Your task to perform on an android device: Set the phone to "Do not disturb". Image 0: 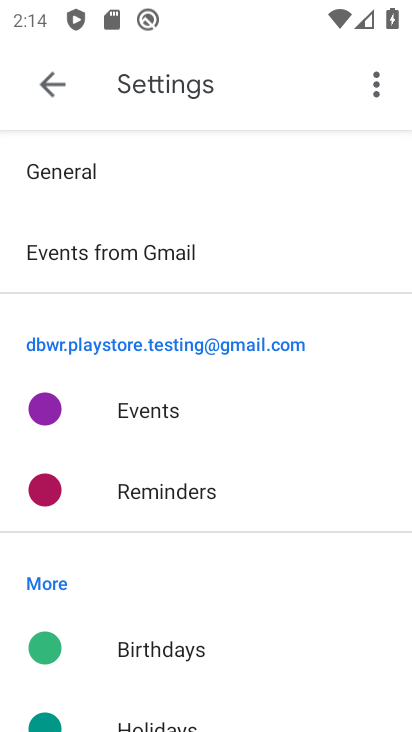
Step 0: press home button
Your task to perform on an android device: Set the phone to "Do not disturb". Image 1: 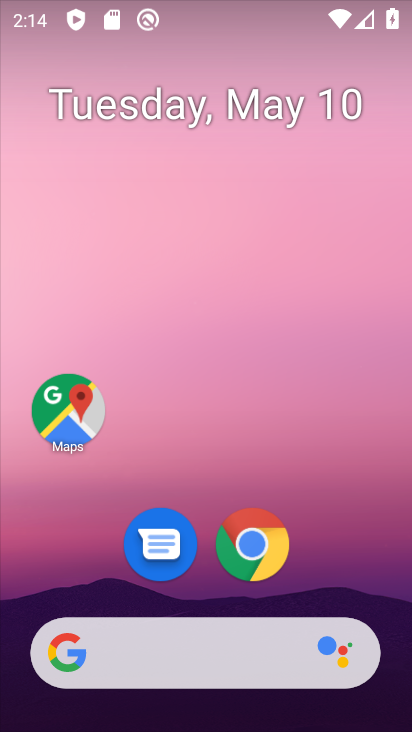
Step 1: drag from (214, 725) to (216, 139)
Your task to perform on an android device: Set the phone to "Do not disturb". Image 2: 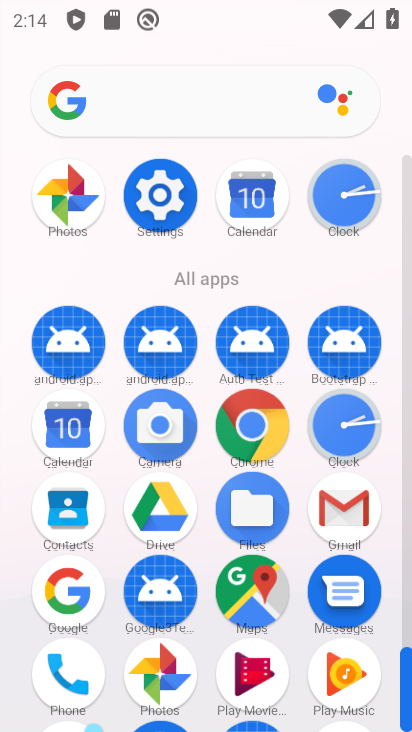
Step 2: click (162, 192)
Your task to perform on an android device: Set the phone to "Do not disturb". Image 3: 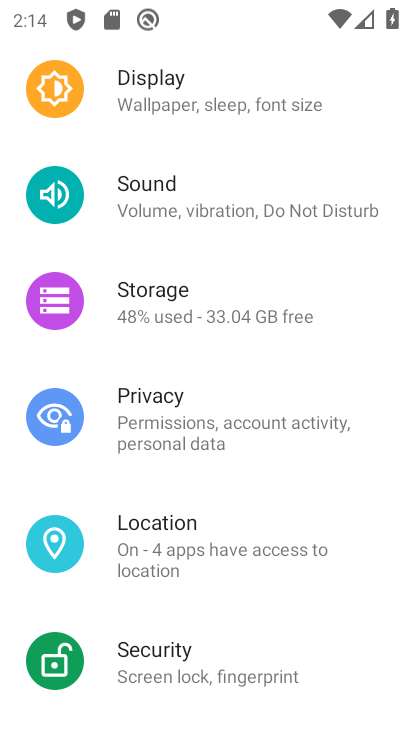
Step 3: click (240, 213)
Your task to perform on an android device: Set the phone to "Do not disturb". Image 4: 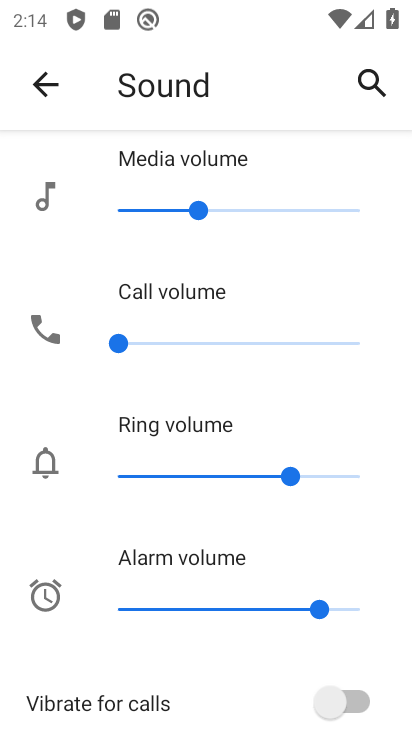
Step 4: drag from (188, 676) to (191, 281)
Your task to perform on an android device: Set the phone to "Do not disturb". Image 5: 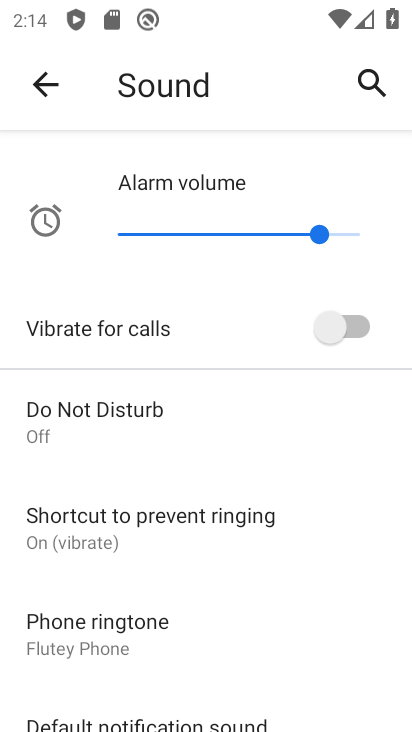
Step 5: click (94, 412)
Your task to perform on an android device: Set the phone to "Do not disturb". Image 6: 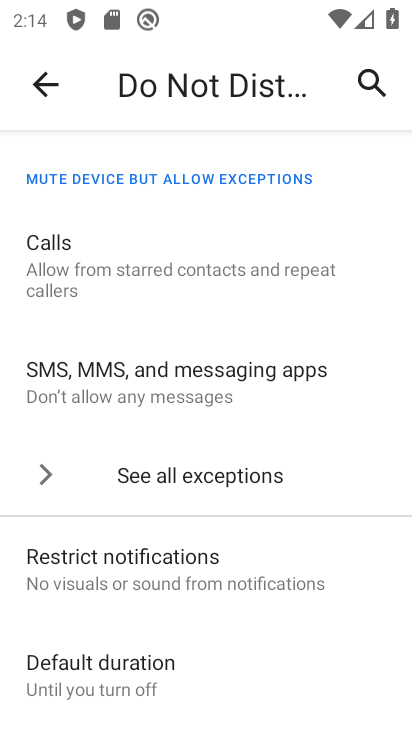
Step 6: drag from (154, 642) to (162, 288)
Your task to perform on an android device: Set the phone to "Do not disturb". Image 7: 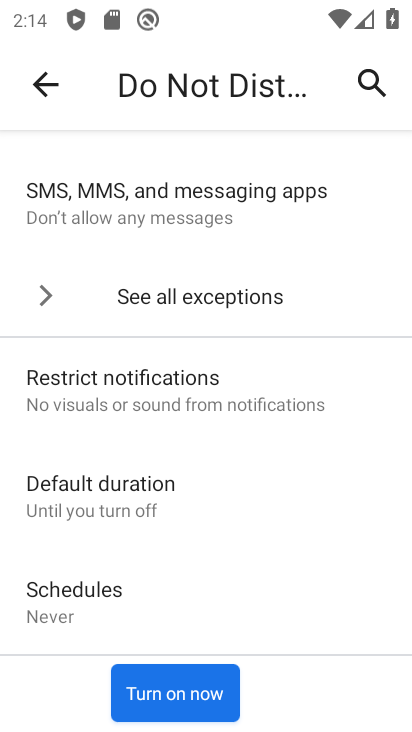
Step 7: click (187, 690)
Your task to perform on an android device: Set the phone to "Do not disturb". Image 8: 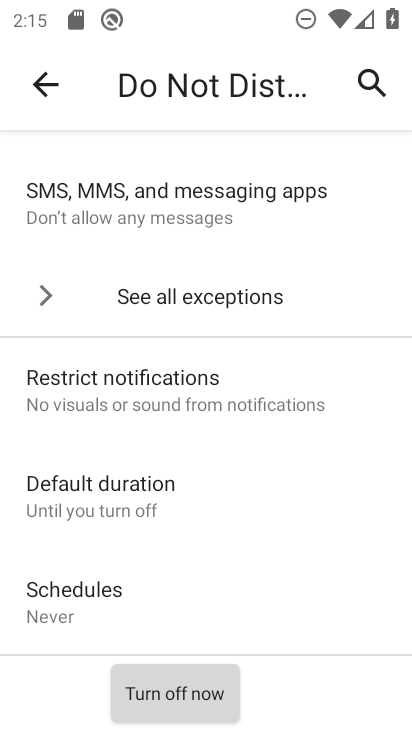
Step 8: task complete